Your task to perform on an android device: Go to battery settings Image 0: 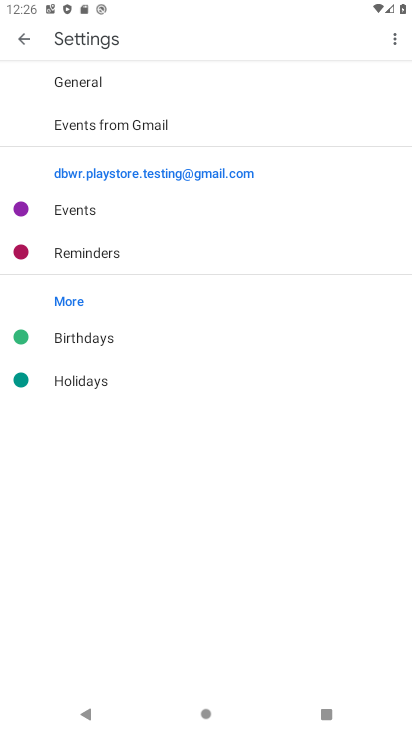
Step 0: press home button
Your task to perform on an android device: Go to battery settings Image 1: 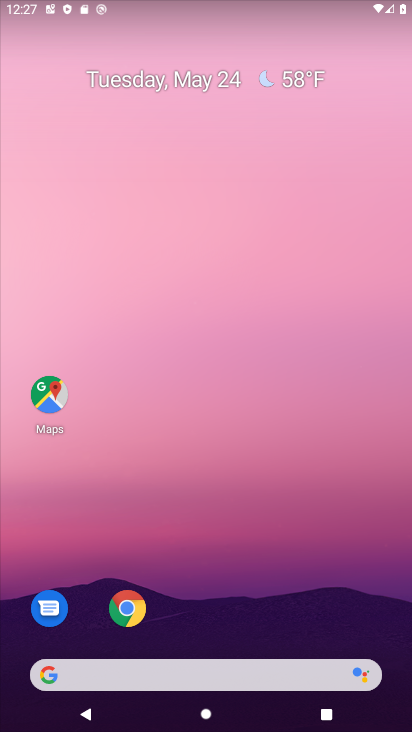
Step 1: drag from (277, 680) to (215, 218)
Your task to perform on an android device: Go to battery settings Image 2: 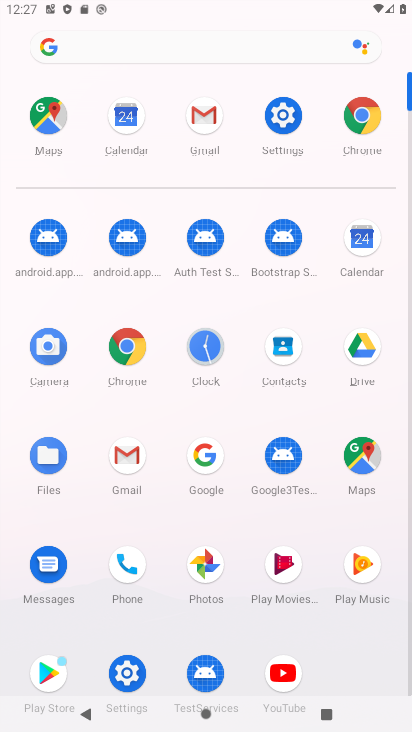
Step 2: click (284, 119)
Your task to perform on an android device: Go to battery settings Image 3: 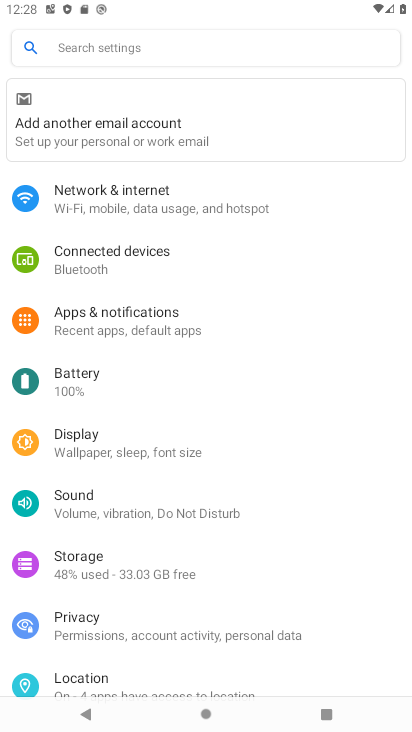
Step 3: click (115, 394)
Your task to perform on an android device: Go to battery settings Image 4: 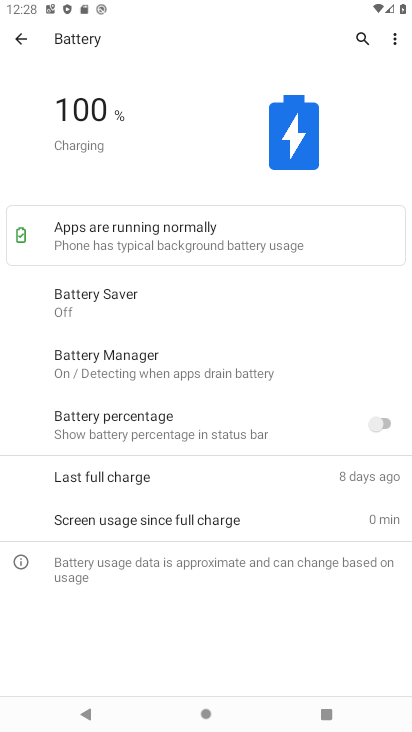
Step 4: task complete